Your task to perform on an android device: Check the latest 3D printers on Target. Image 0: 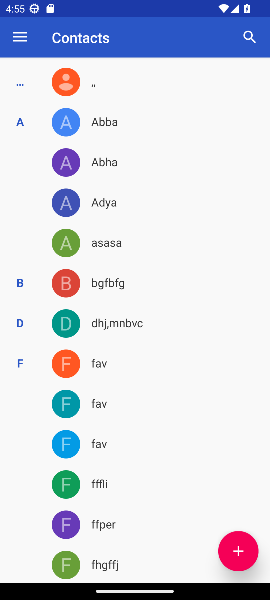
Step 0: press home button
Your task to perform on an android device: Check the latest 3D printers on Target. Image 1: 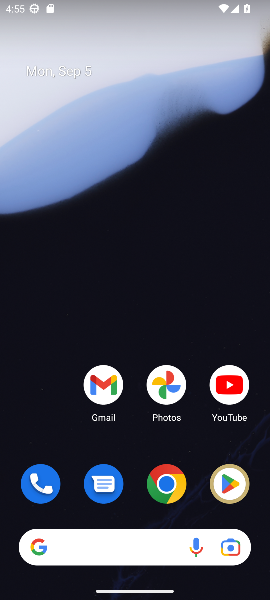
Step 1: click (167, 488)
Your task to perform on an android device: Check the latest 3D printers on Target. Image 2: 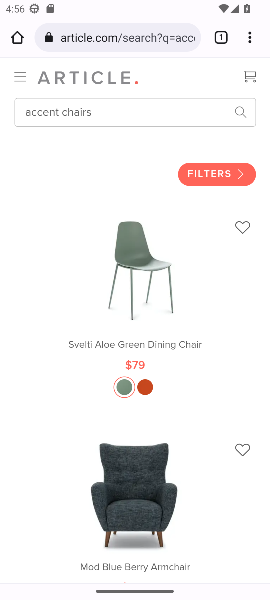
Step 2: click (148, 32)
Your task to perform on an android device: Check the latest 3D printers on Target. Image 3: 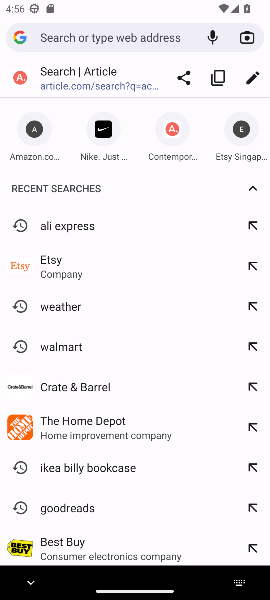
Step 3: type " Target"
Your task to perform on an android device: Check the latest 3D printers on Target. Image 4: 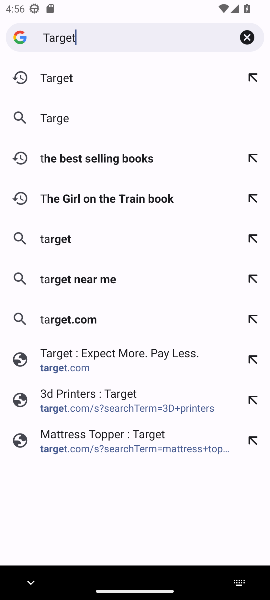
Step 4: press enter
Your task to perform on an android device: Check the latest 3D printers on Target. Image 5: 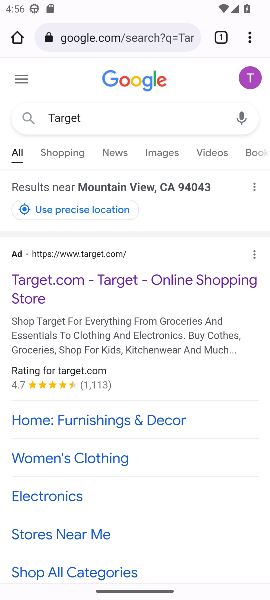
Step 5: click (112, 287)
Your task to perform on an android device: Check the latest 3D printers on Target. Image 6: 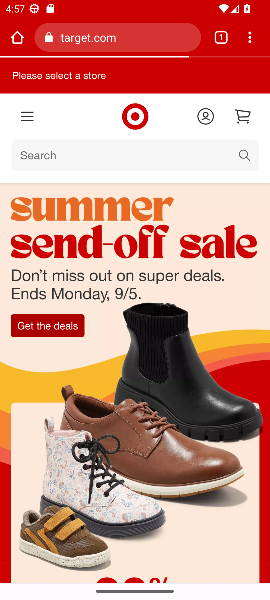
Step 6: click (49, 150)
Your task to perform on an android device: Check the latest 3D printers on Target. Image 7: 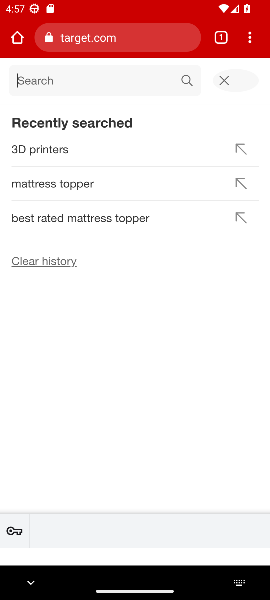
Step 7: type "3D printers"
Your task to perform on an android device: Check the latest 3D printers on Target. Image 8: 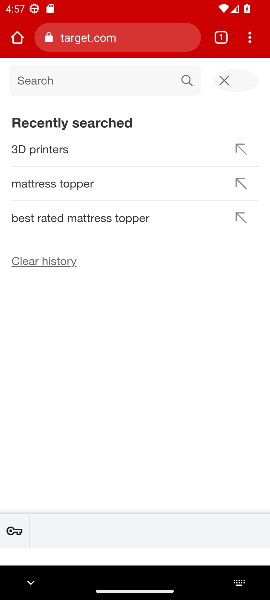
Step 8: press enter
Your task to perform on an android device: Check the latest 3D printers on Target. Image 9: 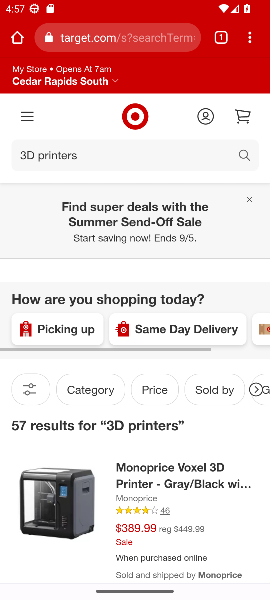
Step 9: task complete